Your task to perform on an android device: Open Chrome and go to settings Image 0: 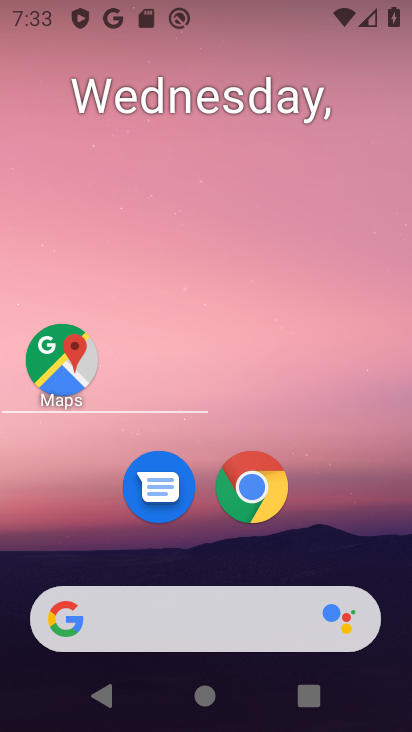
Step 0: click (259, 110)
Your task to perform on an android device: Open Chrome and go to settings Image 1: 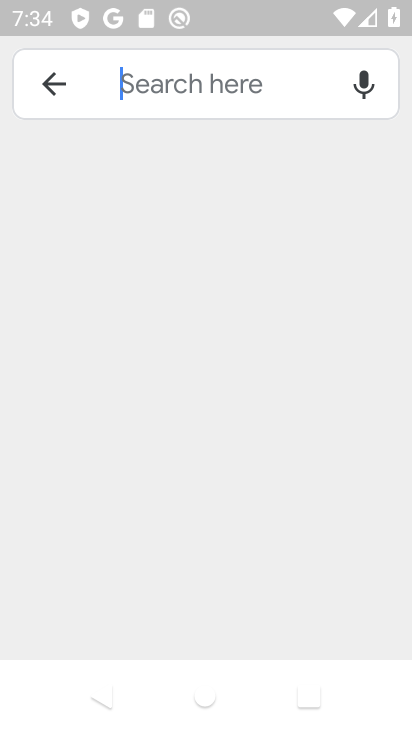
Step 1: press home button
Your task to perform on an android device: Open Chrome and go to settings Image 2: 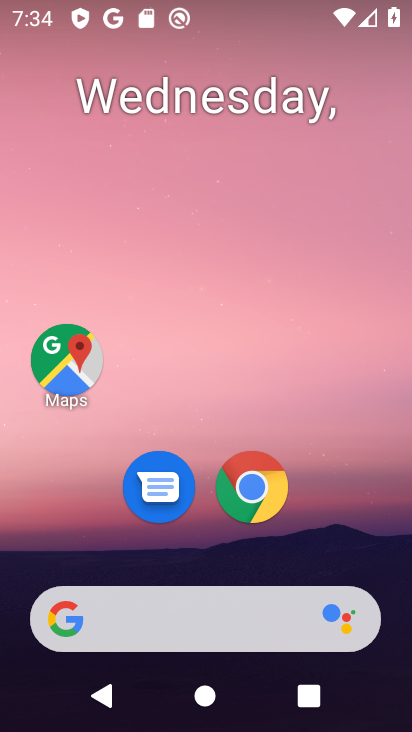
Step 2: drag from (175, 643) to (228, 236)
Your task to perform on an android device: Open Chrome and go to settings Image 3: 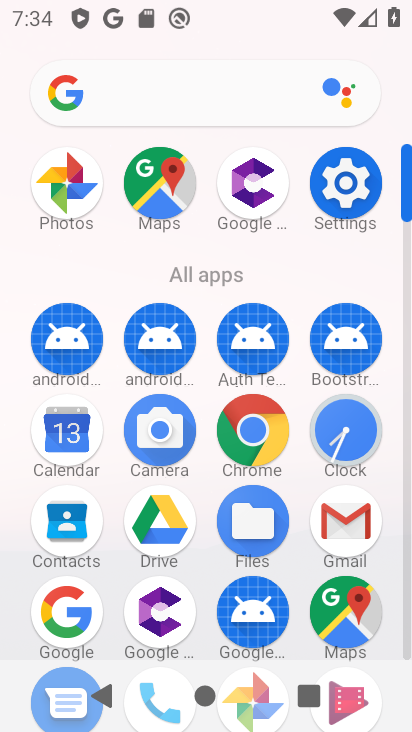
Step 3: click (254, 424)
Your task to perform on an android device: Open Chrome and go to settings Image 4: 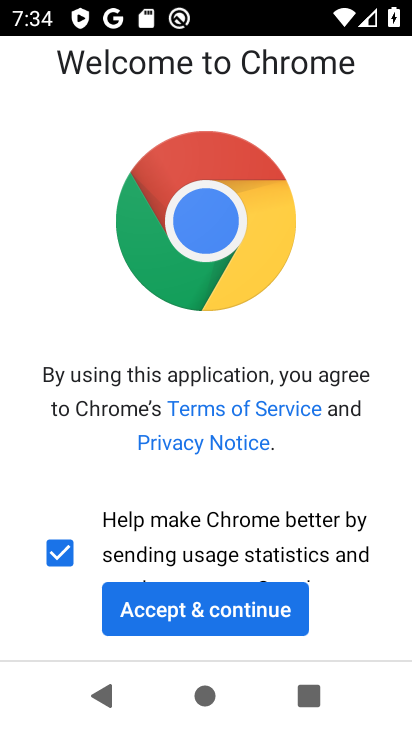
Step 4: click (205, 620)
Your task to perform on an android device: Open Chrome and go to settings Image 5: 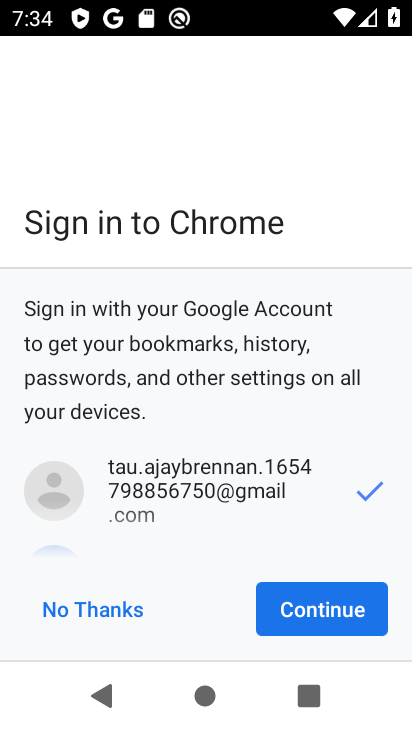
Step 5: click (323, 603)
Your task to perform on an android device: Open Chrome and go to settings Image 6: 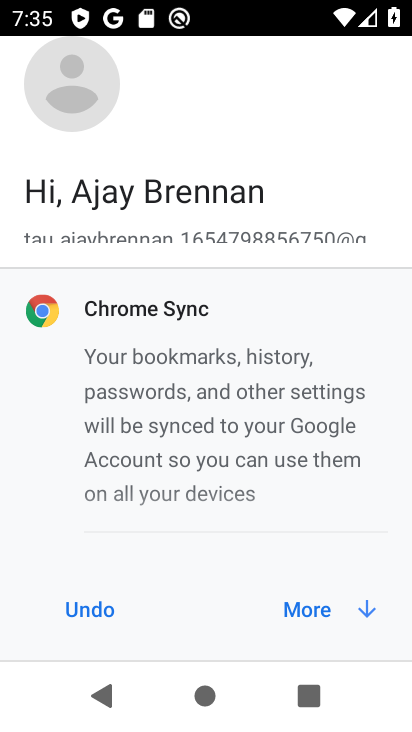
Step 6: click (339, 620)
Your task to perform on an android device: Open Chrome and go to settings Image 7: 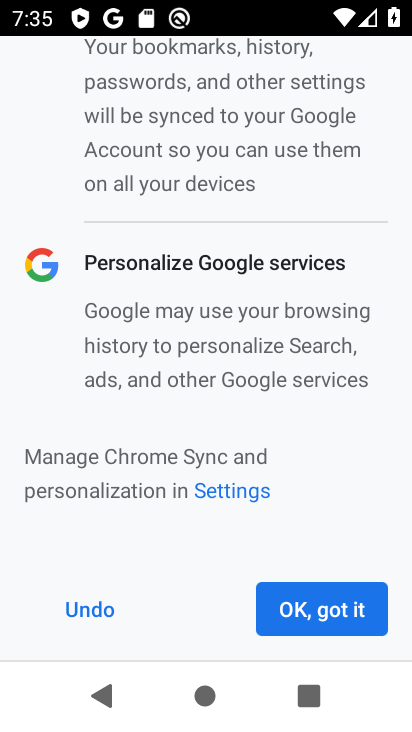
Step 7: click (341, 620)
Your task to perform on an android device: Open Chrome and go to settings Image 8: 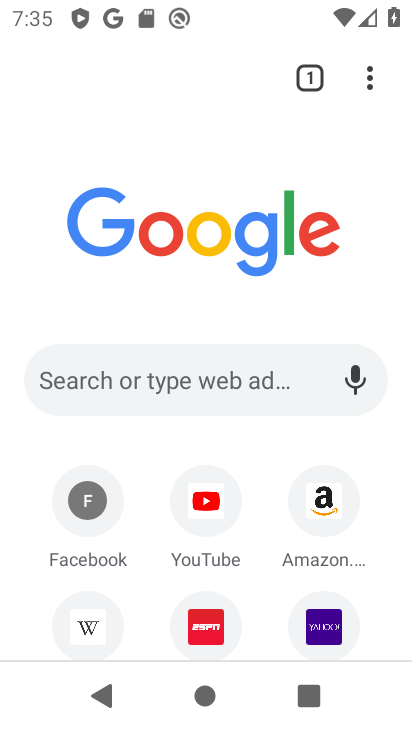
Step 8: click (374, 95)
Your task to perform on an android device: Open Chrome and go to settings Image 9: 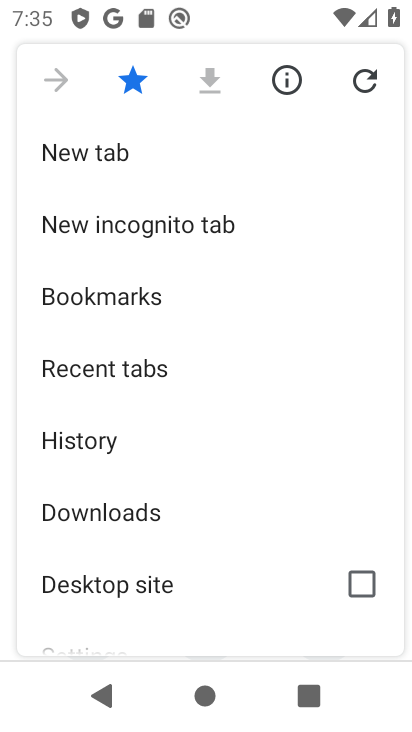
Step 9: drag from (101, 533) to (87, 228)
Your task to perform on an android device: Open Chrome and go to settings Image 10: 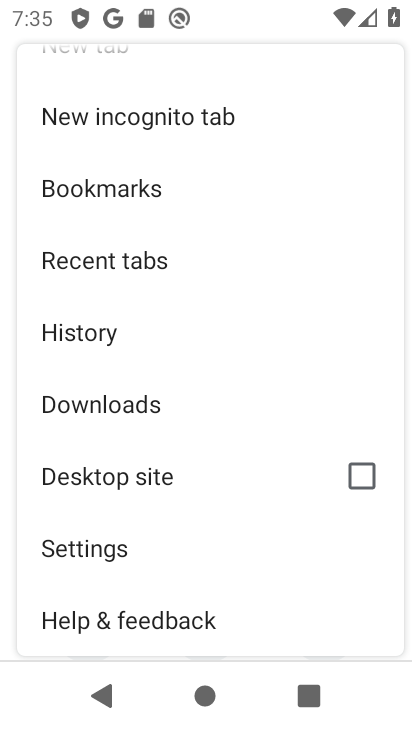
Step 10: click (99, 546)
Your task to perform on an android device: Open Chrome and go to settings Image 11: 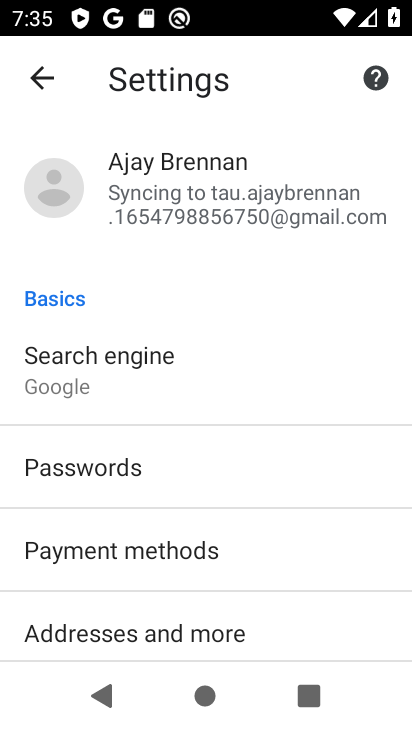
Step 11: task complete